Your task to perform on an android device: change alarm snooze length Image 0: 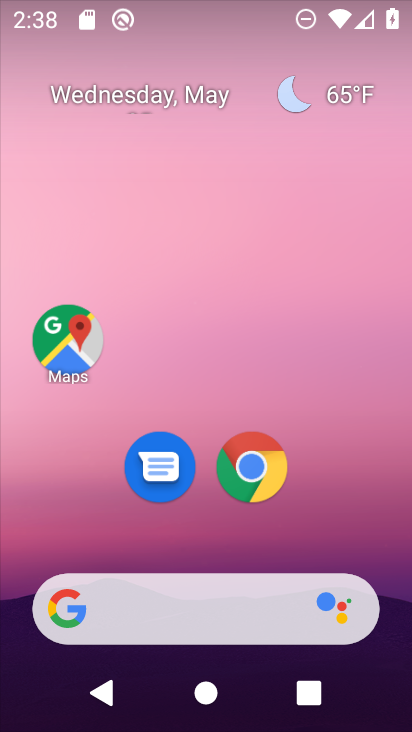
Step 0: drag from (327, 447) to (317, 268)
Your task to perform on an android device: change alarm snooze length Image 1: 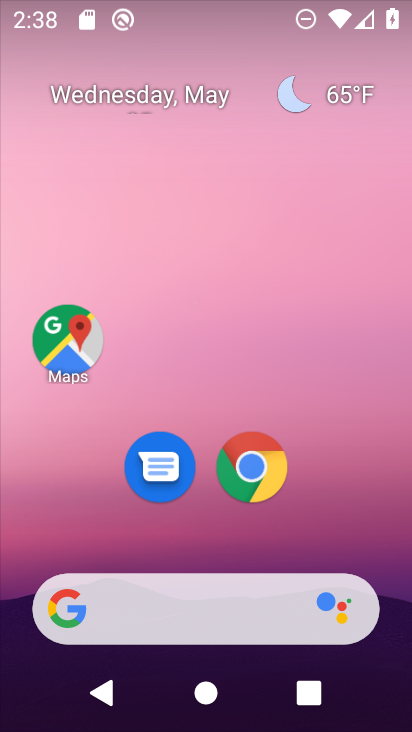
Step 1: click (314, 288)
Your task to perform on an android device: change alarm snooze length Image 2: 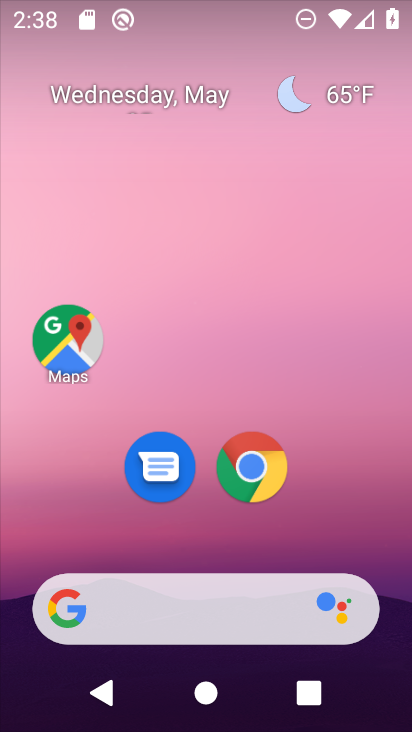
Step 2: drag from (277, 512) to (299, 144)
Your task to perform on an android device: change alarm snooze length Image 3: 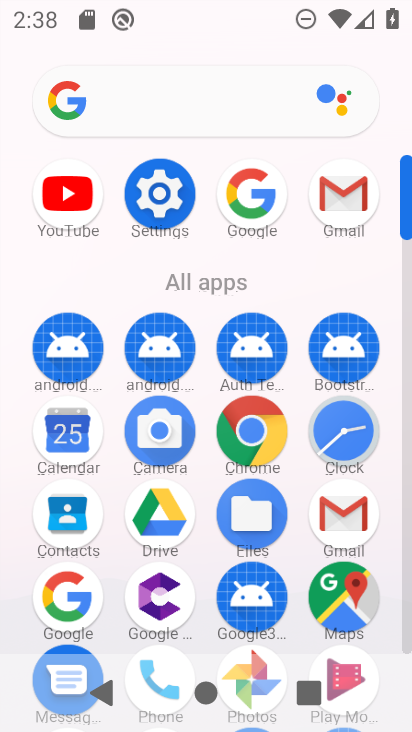
Step 3: click (361, 417)
Your task to perform on an android device: change alarm snooze length Image 4: 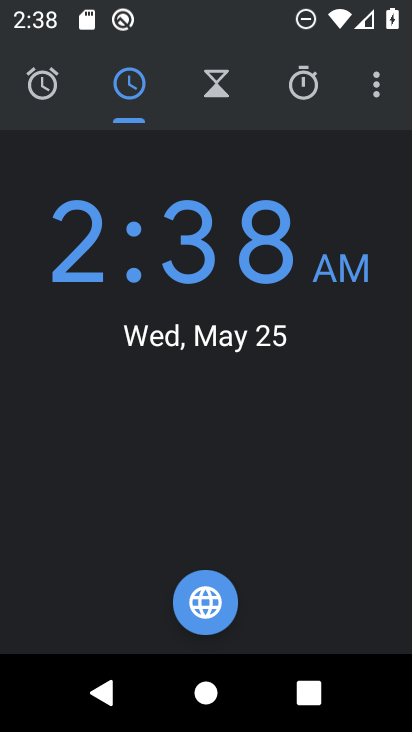
Step 4: click (382, 64)
Your task to perform on an android device: change alarm snooze length Image 5: 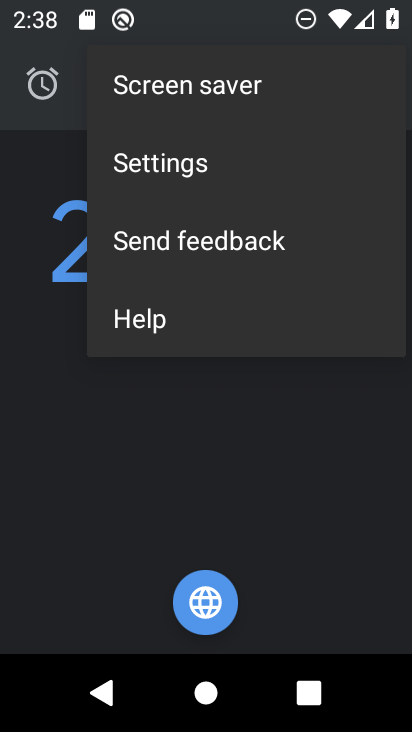
Step 5: click (217, 172)
Your task to perform on an android device: change alarm snooze length Image 6: 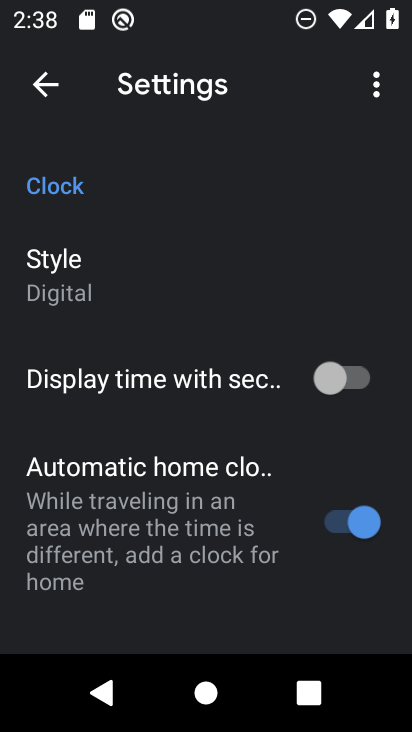
Step 6: drag from (155, 595) to (164, 271)
Your task to perform on an android device: change alarm snooze length Image 7: 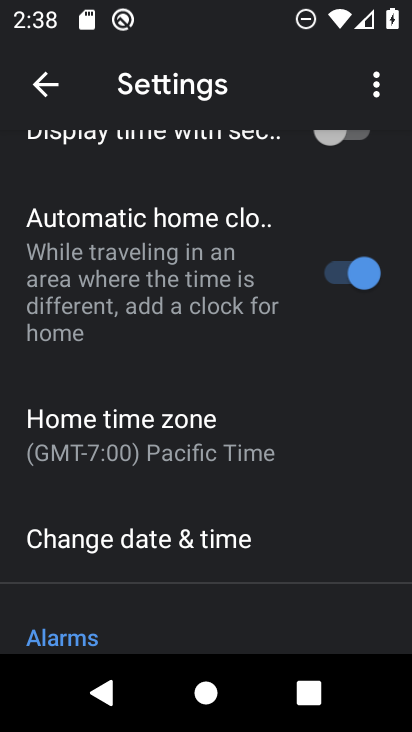
Step 7: drag from (177, 560) to (164, 298)
Your task to perform on an android device: change alarm snooze length Image 8: 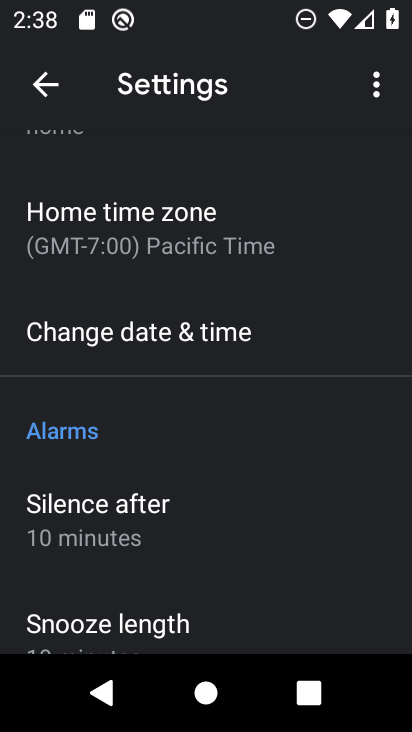
Step 8: click (158, 609)
Your task to perform on an android device: change alarm snooze length Image 9: 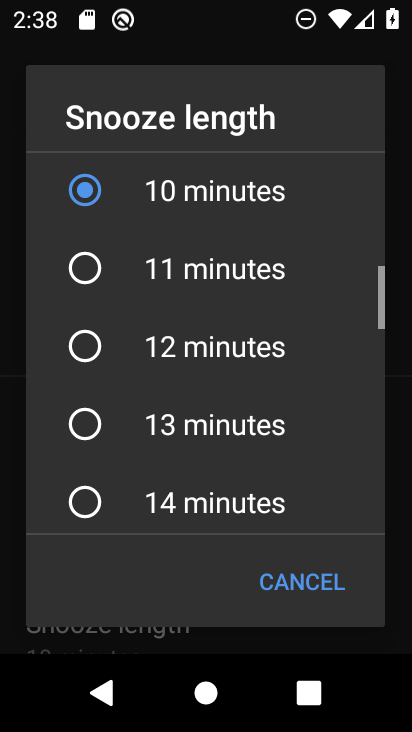
Step 9: drag from (212, 485) to (202, 203)
Your task to perform on an android device: change alarm snooze length Image 10: 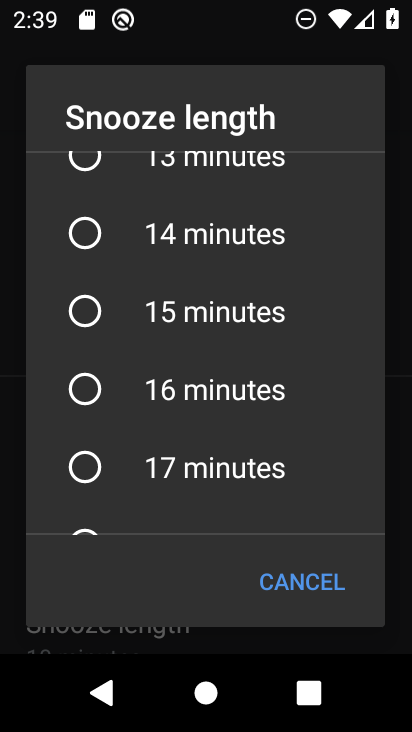
Step 10: click (173, 446)
Your task to perform on an android device: change alarm snooze length Image 11: 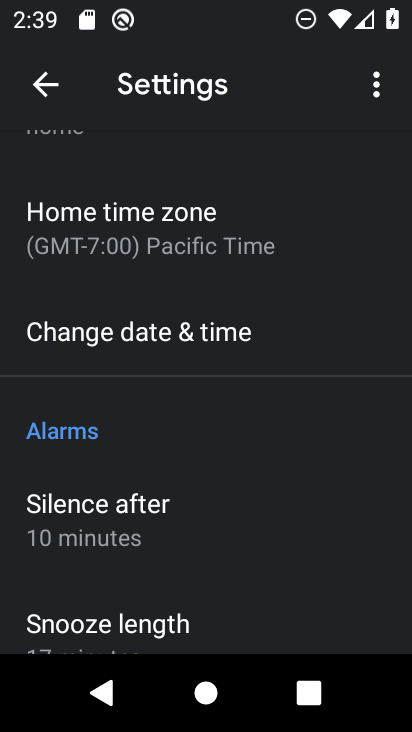
Step 11: task complete